Your task to perform on an android device: What is the news today? Image 0: 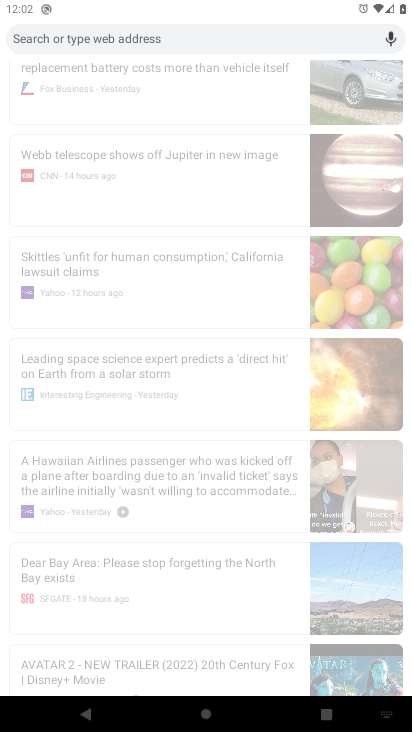
Step 0: press home button
Your task to perform on an android device: What is the news today? Image 1: 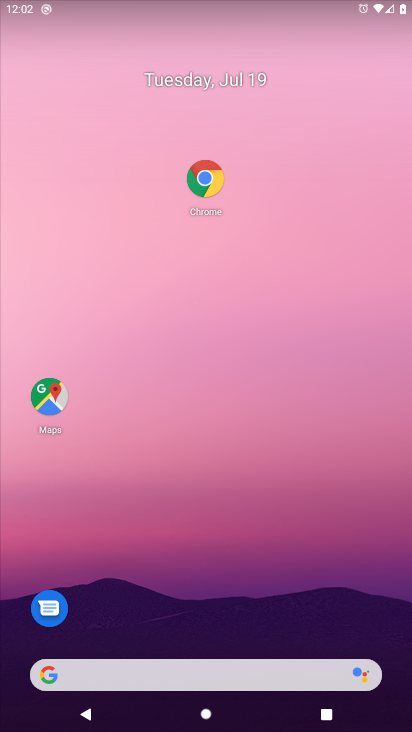
Step 1: drag from (51, 643) to (172, 172)
Your task to perform on an android device: What is the news today? Image 2: 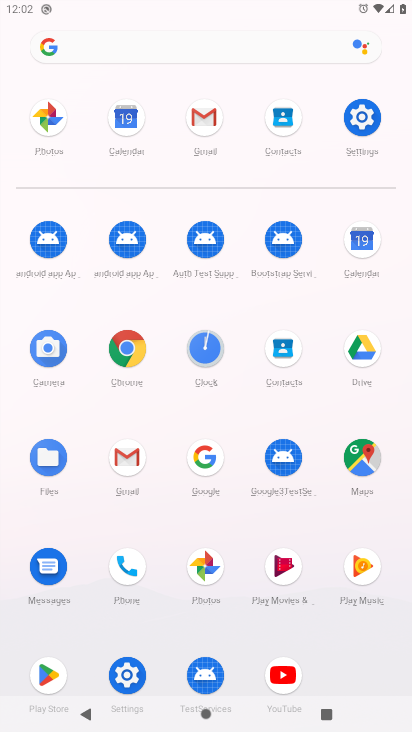
Step 2: click (163, 44)
Your task to perform on an android device: What is the news today? Image 3: 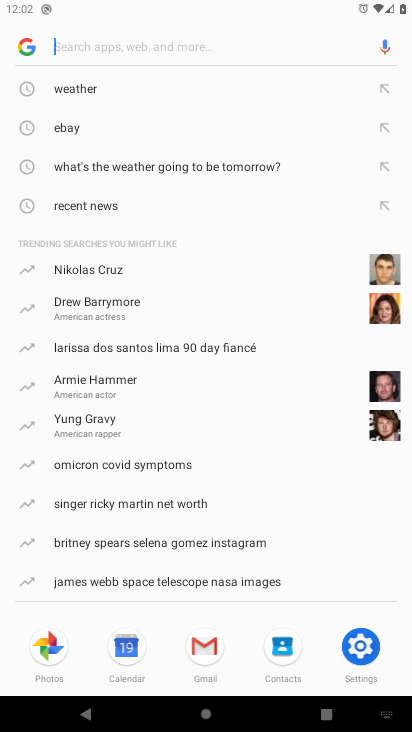
Step 3: type "What is the news today?"
Your task to perform on an android device: What is the news today? Image 4: 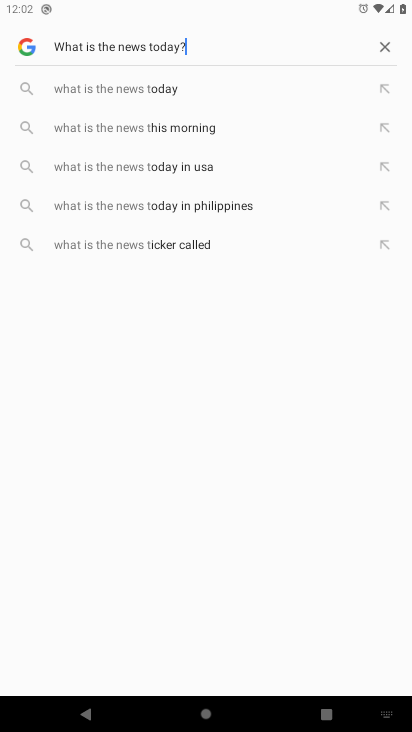
Step 4: type ""
Your task to perform on an android device: What is the news today? Image 5: 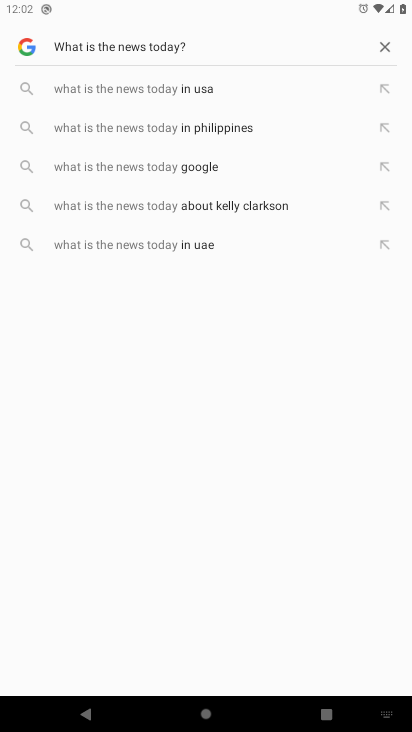
Step 5: type ""
Your task to perform on an android device: What is the news today? Image 6: 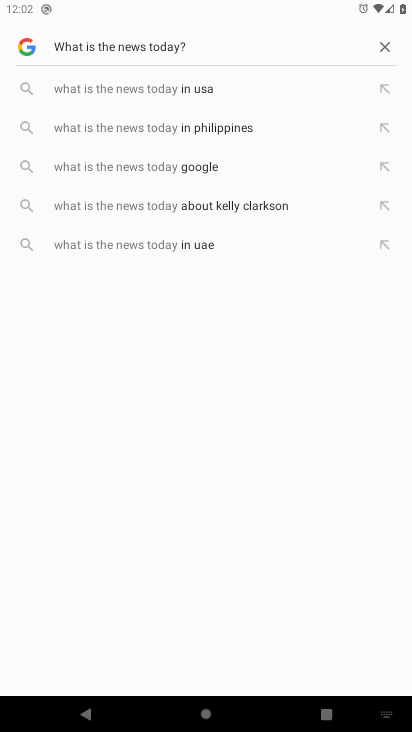
Step 6: type ""
Your task to perform on an android device: What is the news today? Image 7: 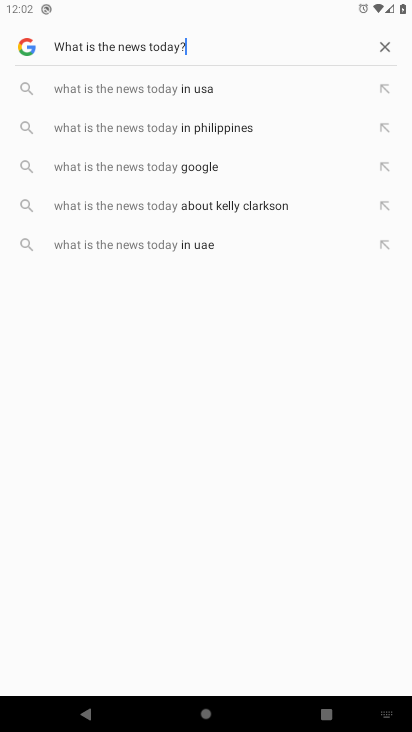
Step 7: task complete